Your task to perform on an android device: Add "usb-c" to the cart on costco.com Image 0: 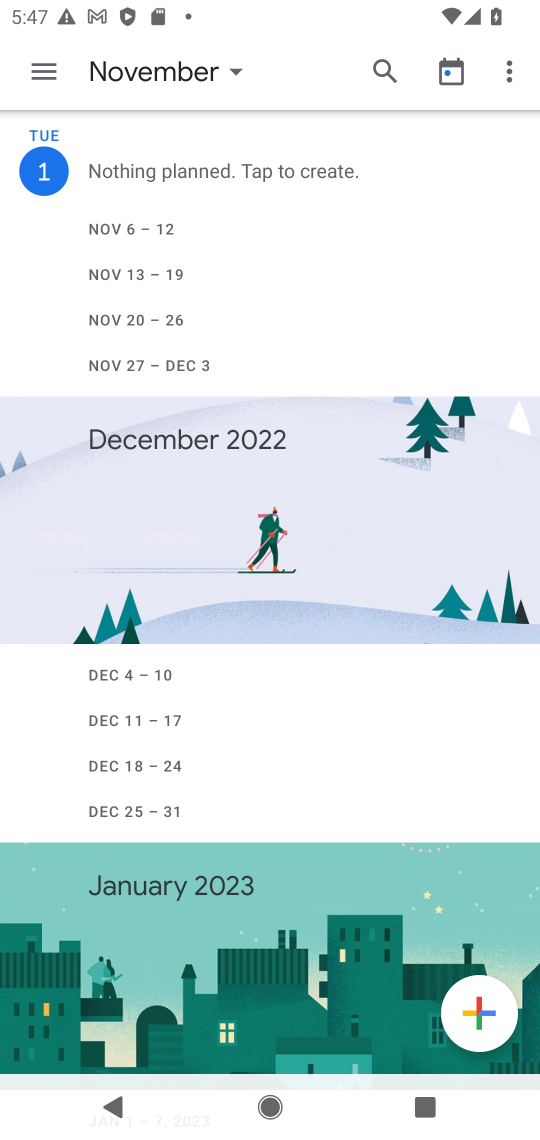
Step 0: press home button
Your task to perform on an android device: Add "usb-c" to the cart on costco.com Image 1: 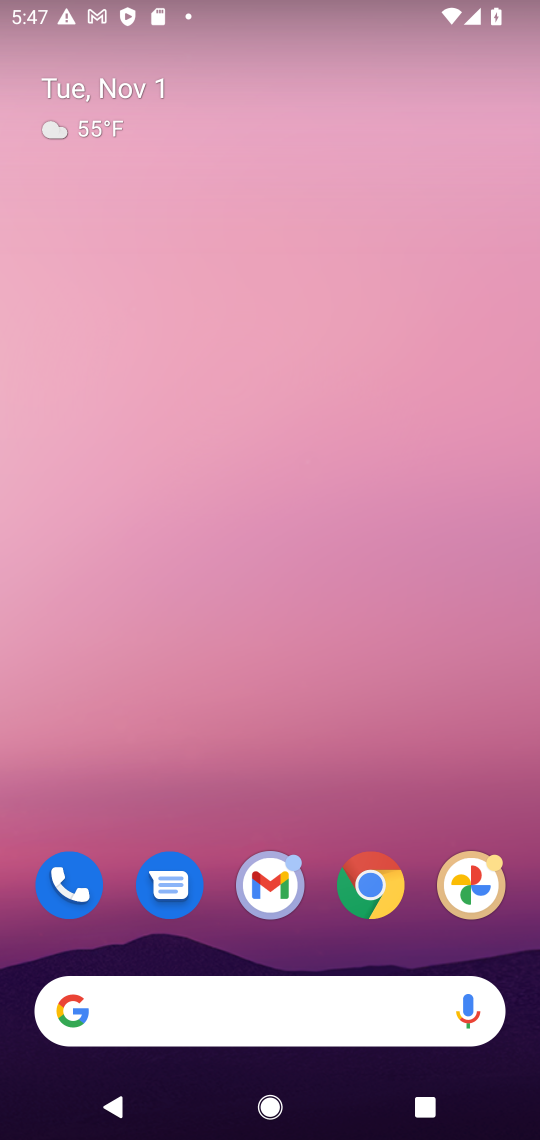
Step 1: click (368, 886)
Your task to perform on an android device: Add "usb-c" to the cart on costco.com Image 2: 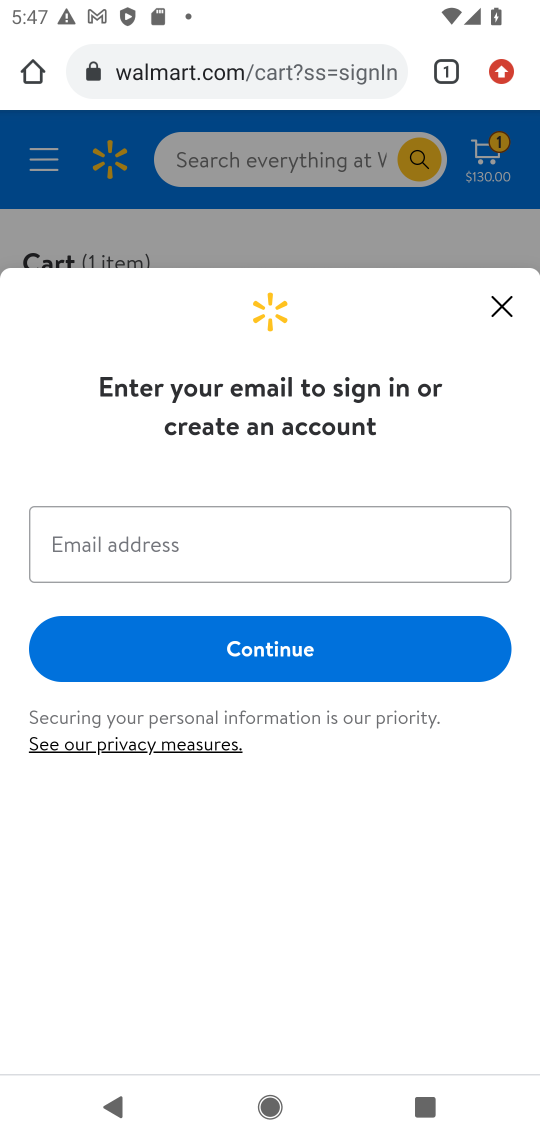
Step 2: click (243, 47)
Your task to perform on an android device: Add "usb-c" to the cart on costco.com Image 3: 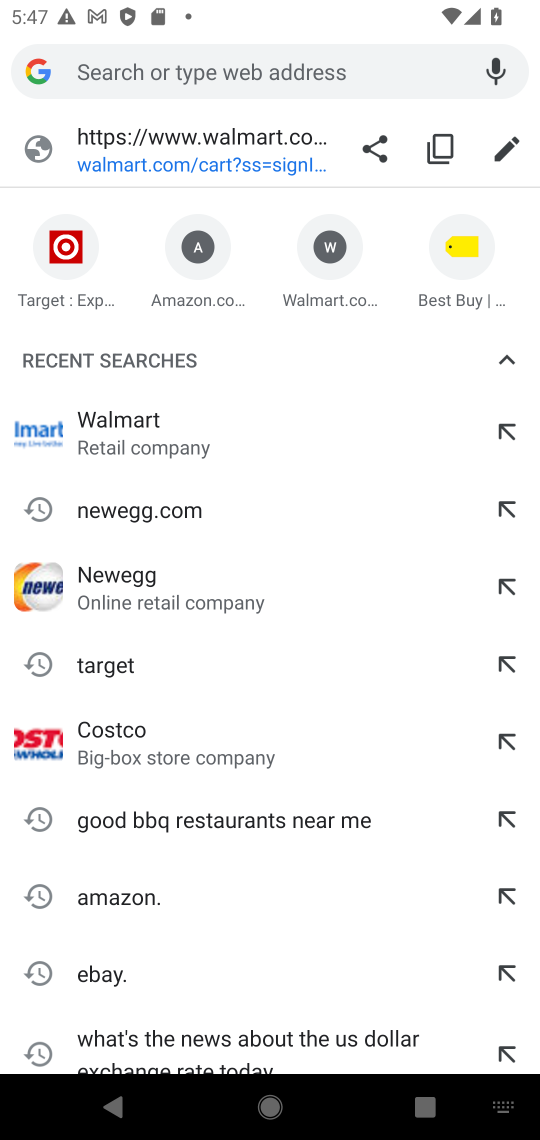
Step 3: type "costco.com"
Your task to perform on an android device: Add "usb-c" to the cart on costco.com Image 4: 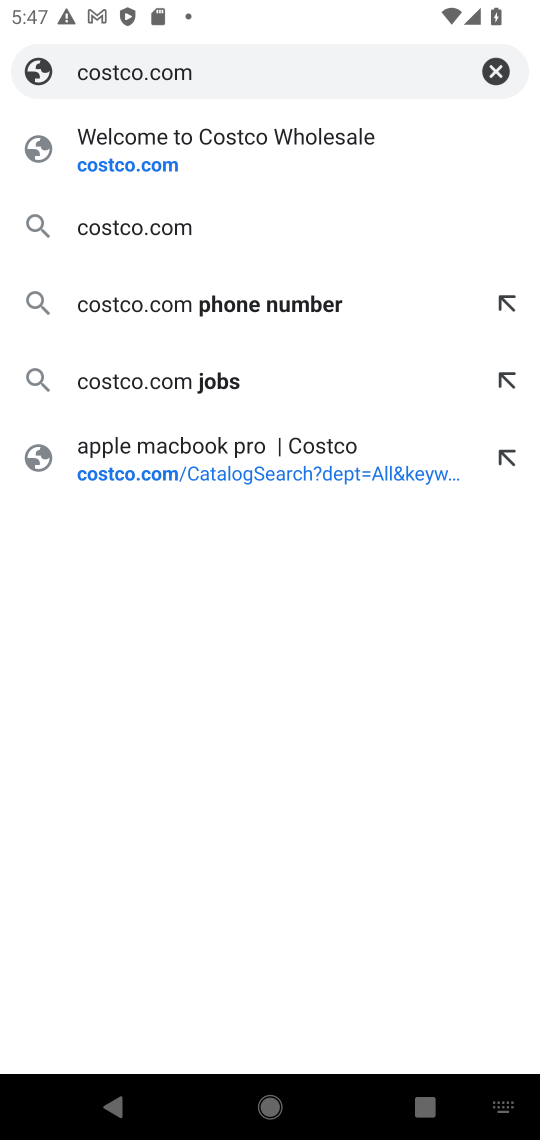
Step 4: click (116, 138)
Your task to perform on an android device: Add "usb-c" to the cart on costco.com Image 5: 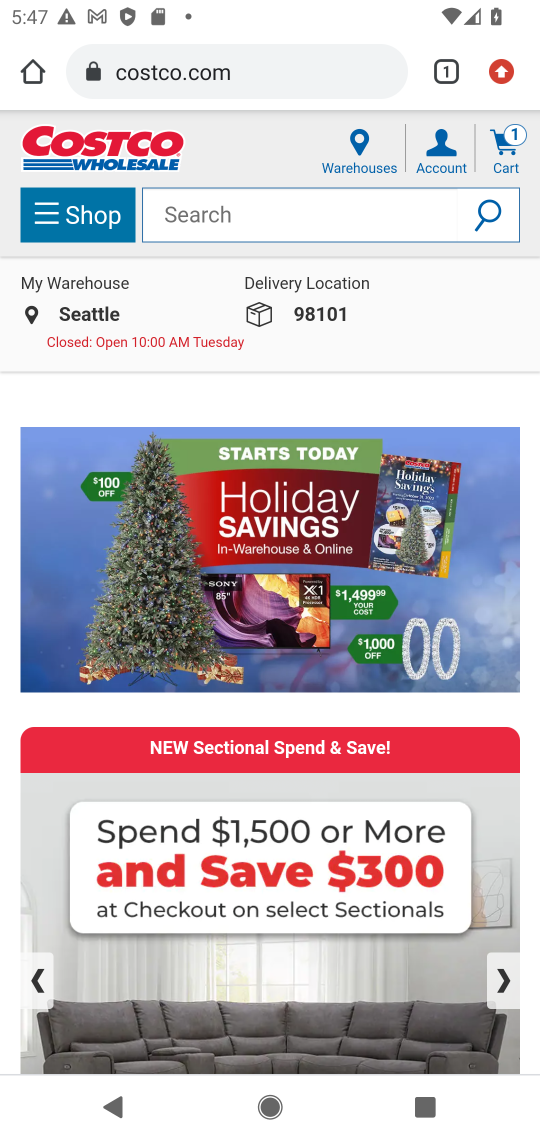
Step 5: click (269, 210)
Your task to perform on an android device: Add "usb-c" to the cart on costco.com Image 6: 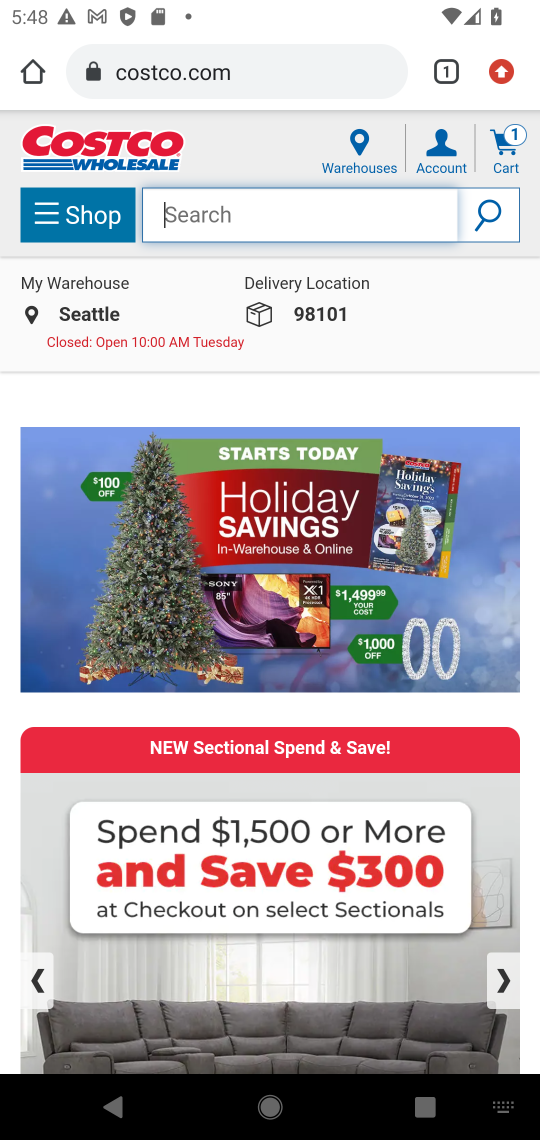
Step 6: type "usb-c"
Your task to perform on an android device: Add "usb-c" to the cart on costco.com Image 7: 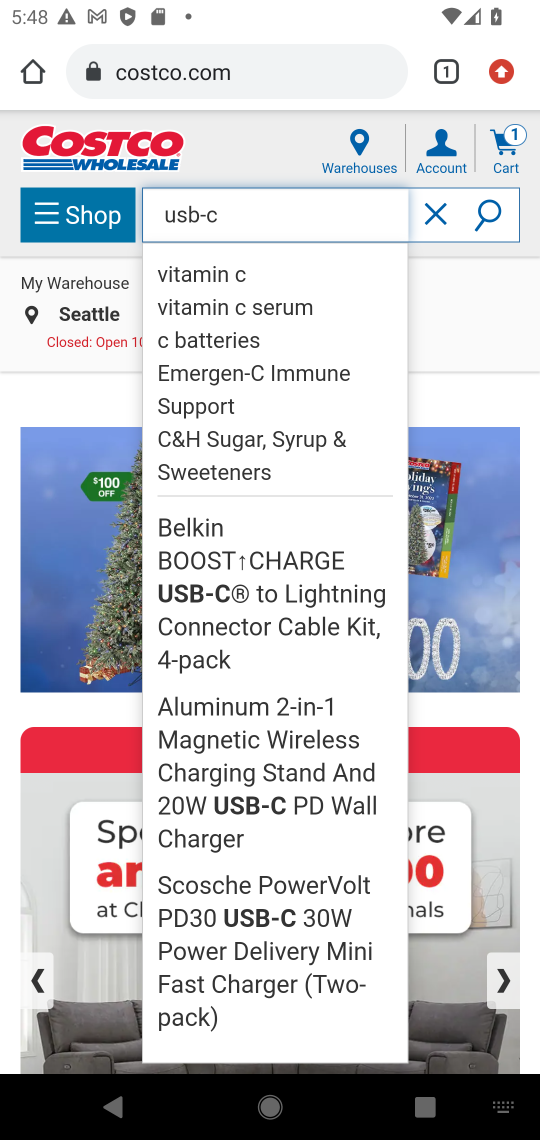
Step 7: click (489, 203)
Your task to perform on an android device: Add "usb-c" to the cart on costco.com Image 8: 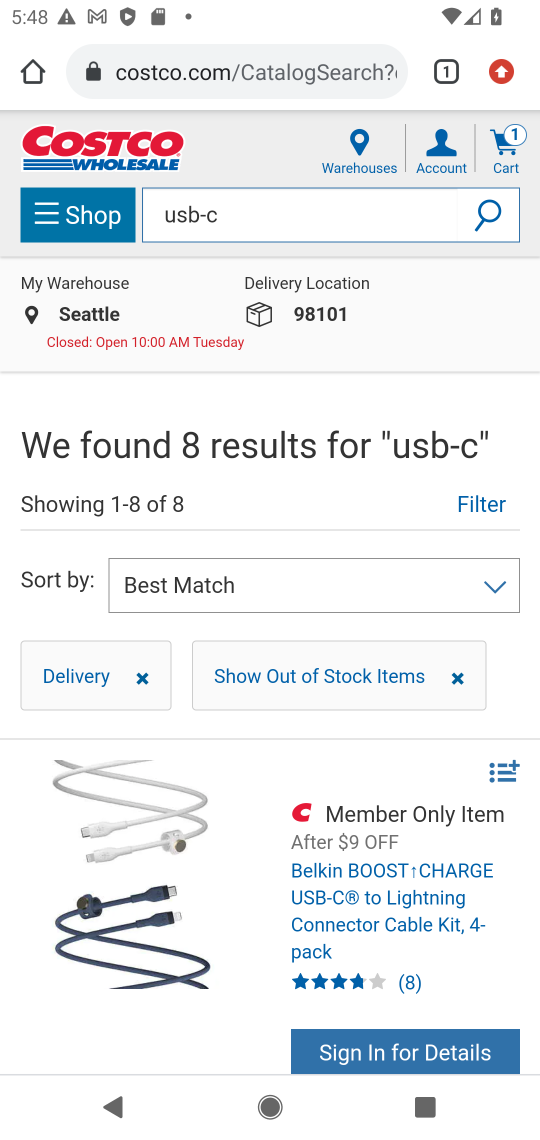
Step 8: drag from (272, 816) to (312, 415)
Your task to perform on an android device: Add "usb-c" to the cart on costco.com Image 9: 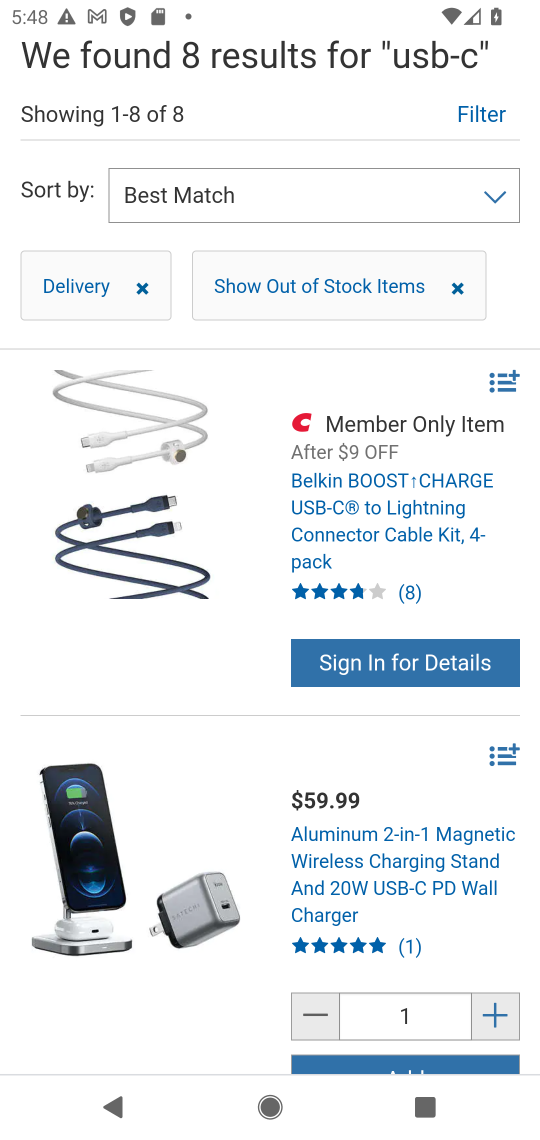
Step 9: drag from (267, 854) to (272, 337)
Your task to perform on an android device: Add "usb-c" to the cart on costco.com Image 10: 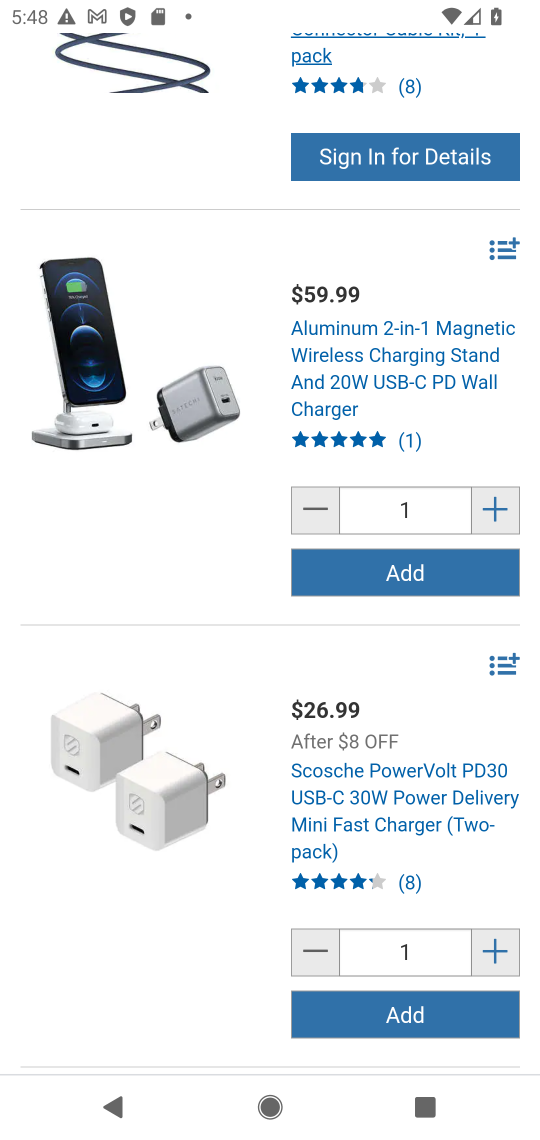
Step 10: click (407, 1011)
Your task to perform on an android device: Add "usb-c" to the cart on costco.com Image 11: 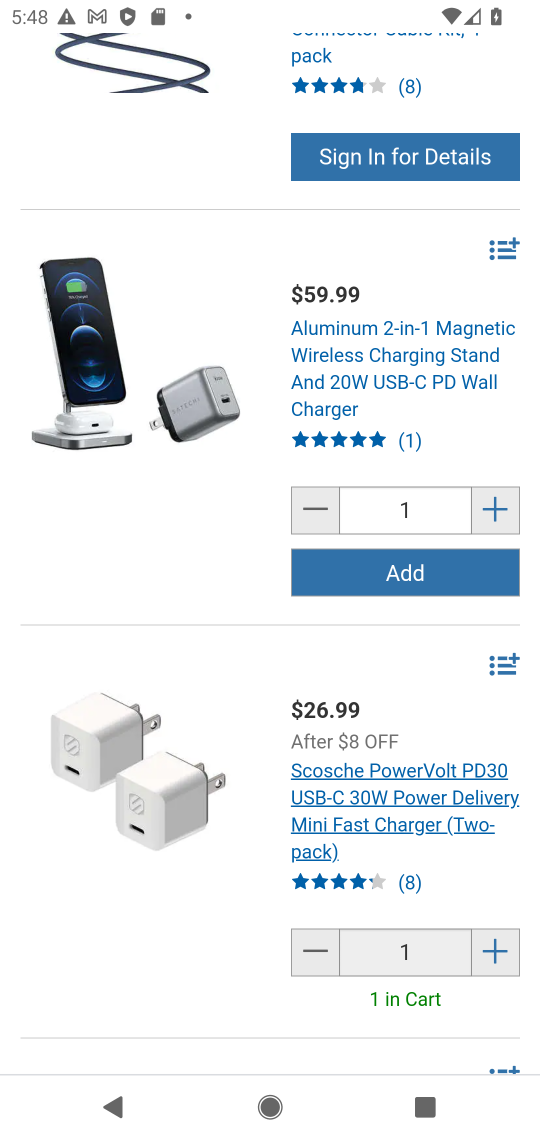
Step 11: task complete